Your task to perform on an android device: delete browsing data in the chrome app Image 0: 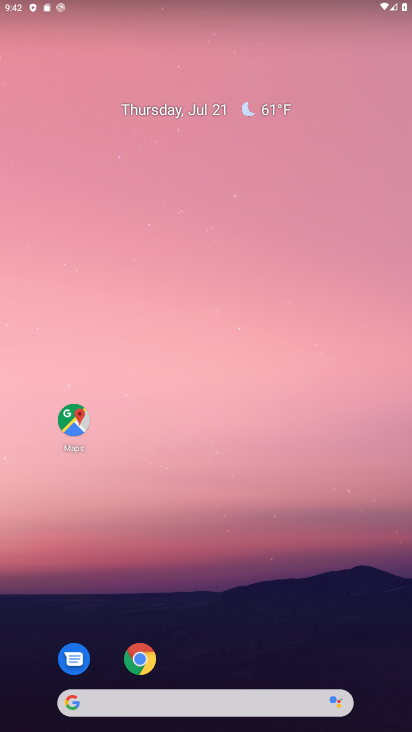
Step 0: click (140, 658)
Your task to perform on an android device: delete browsing data in the chrome app Image 1: 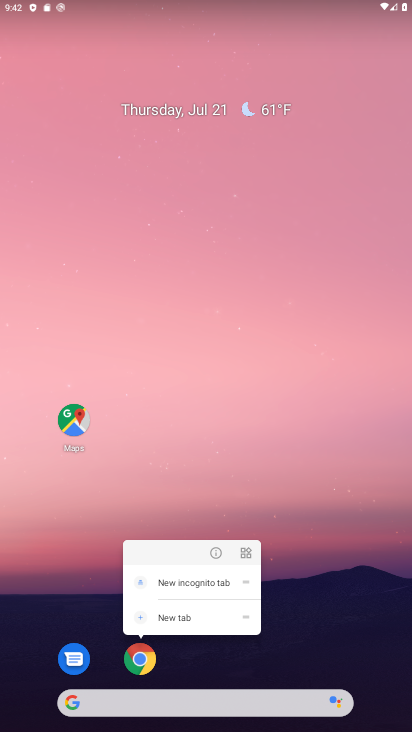
Step 1: click (134, 666)
Your task to perform on an android device: delete browsing data in the chrome app Image 2: 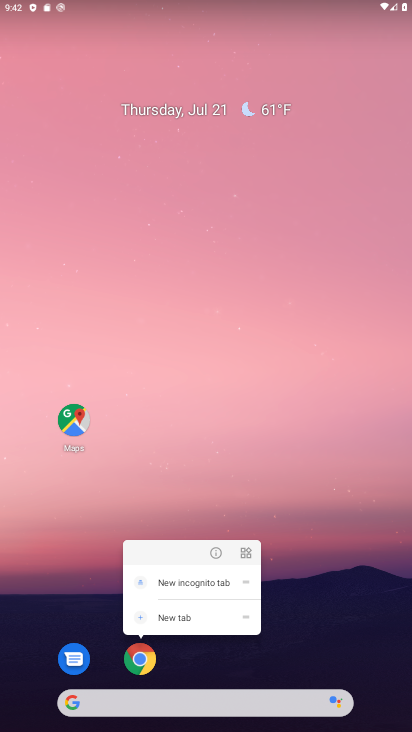
Step 2: click (137, 648)
Your task to perform on an android device: delete browsing data in the chrome app Image 3: 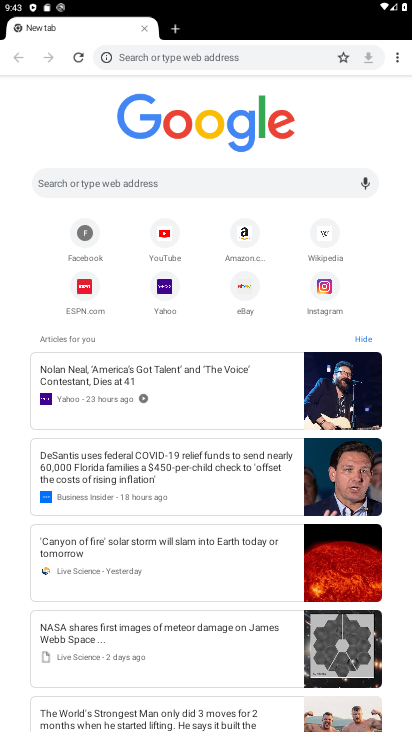
Step 3: click (398, 57)
Your task to perform on an android device: delete browsing data in the chrome app Image 4: 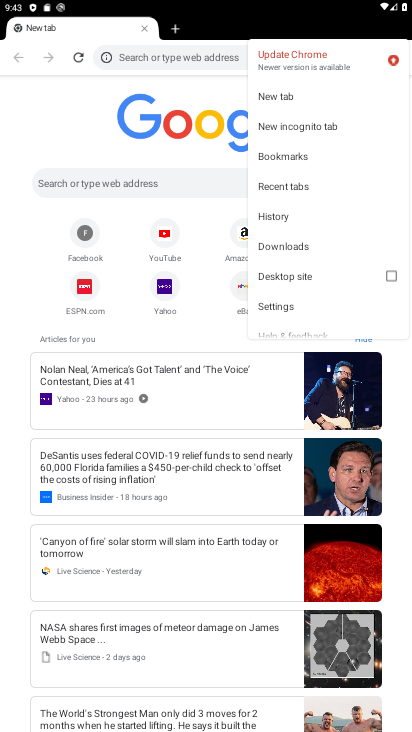
Step 4: click (273, 216)
Your task to perform on an android device: delete browsing data in the chrome app Image 5: 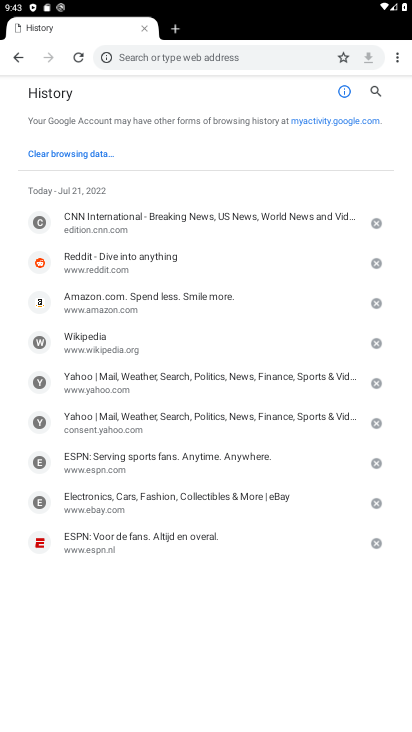
Step 5: click (62, 153)
Your task to perform on an android device: delete browsing data in the chrome app Image 6: 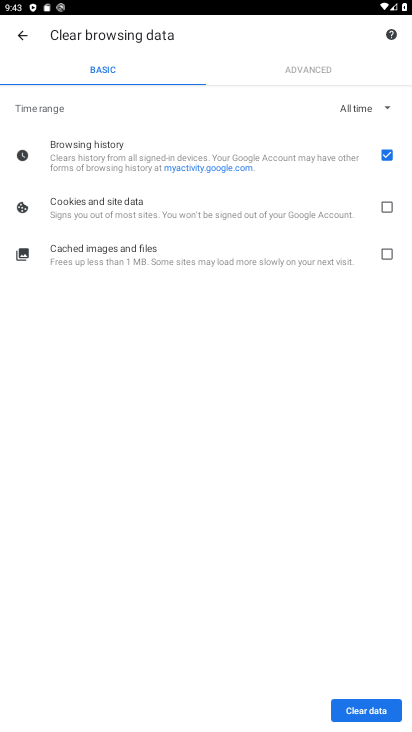
Step 6: click (376, 707)
Your task to perform on an android device: delete browsing data in the chrome app Image 7: 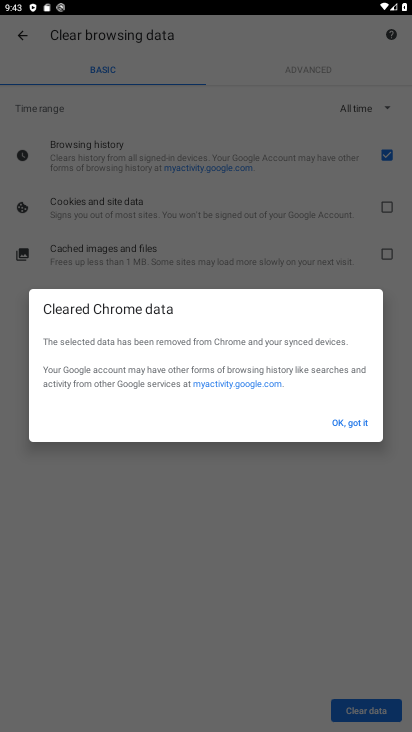
Step 7: click (357, 421)
Your task to perform on an android device: delete browsing data in the chrome app Image 8: 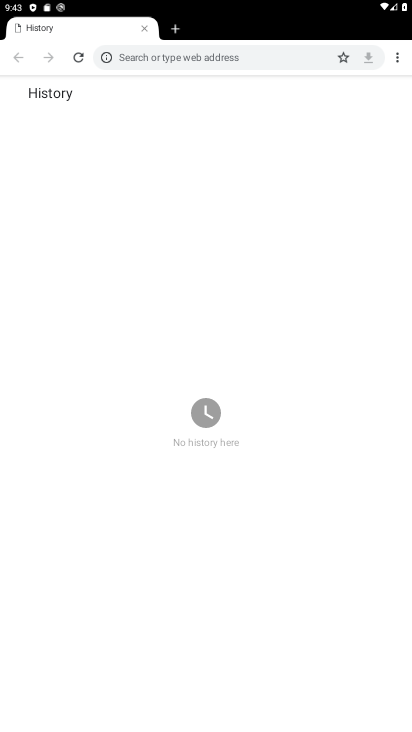
Step 8: task complete